Your task to perform on an android device: When is my next appointment? Image 0: 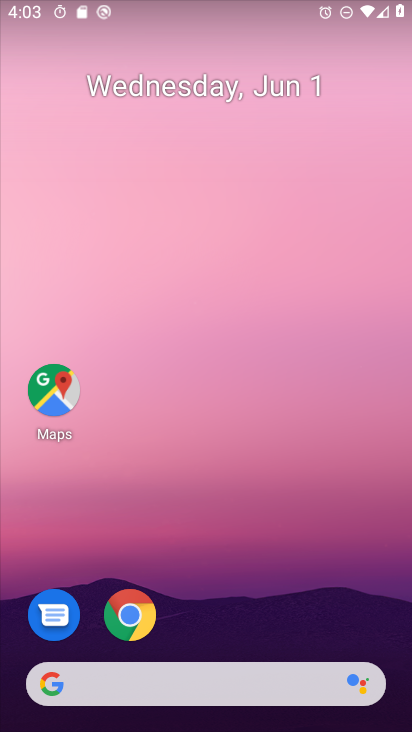
Step 0: drag from (144, 682) to (302, 7)
Your task to perform on an android device: When is my next appointment? Image 1: 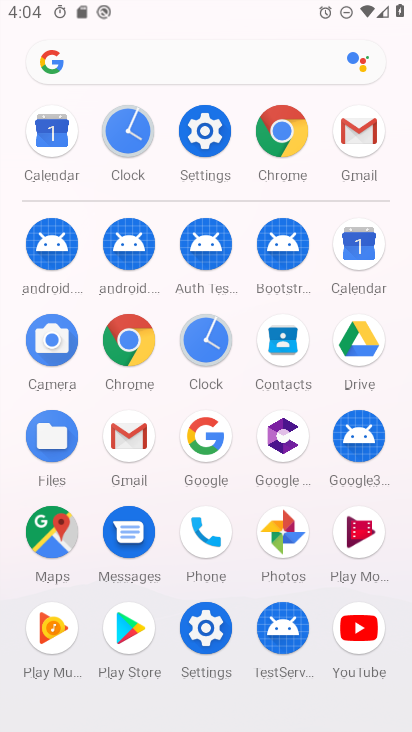
Step 1: click (364, 237)
Your task to perform on an android device: When is my next appointment? Image 2: 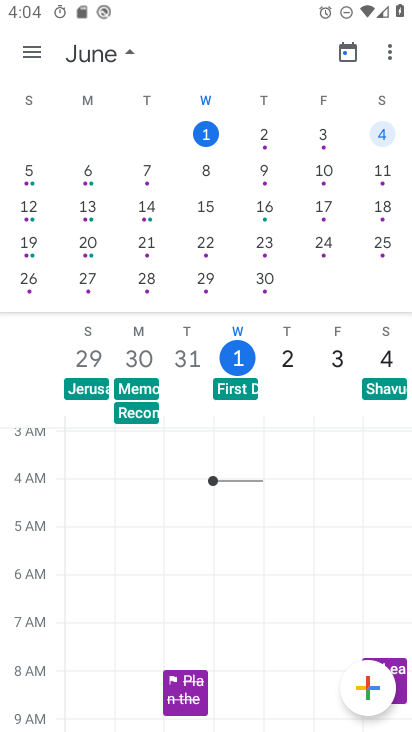
Step 2: click (274, 134)
Your task to perform on an android device: When is my next appointment? Image 3: 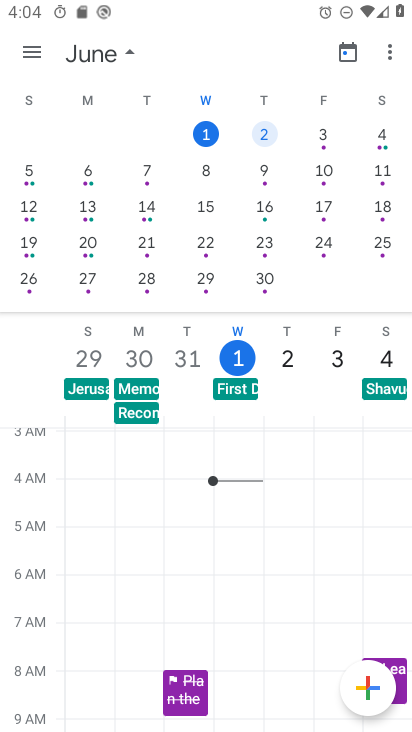
Step 3: task complete